Your task to perform on an android device: Go to sound settings Image 0: 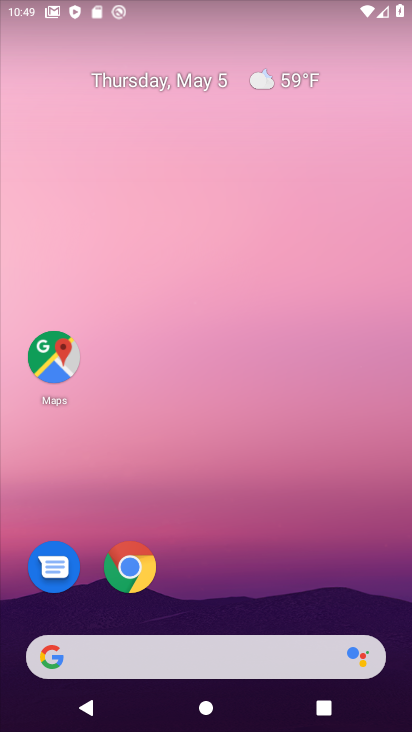
Step 0: drag from (227, 591) to (90, 195)
Your task to perform on an android device: Go to sound settings Image 1: 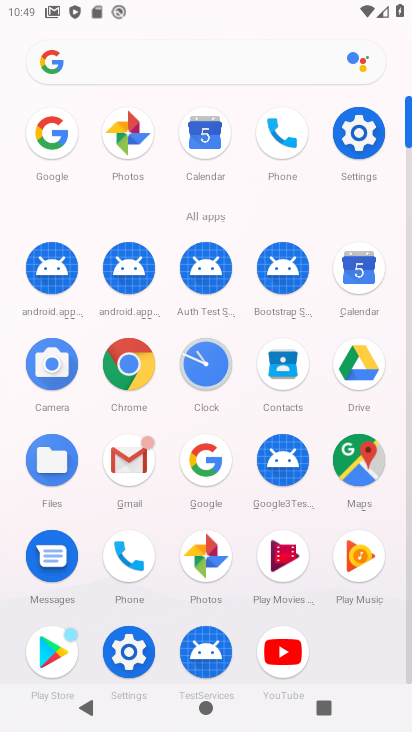
Step 1: click (137, 652)
Your task to perform on an android device: Go to sound settings Image 2: 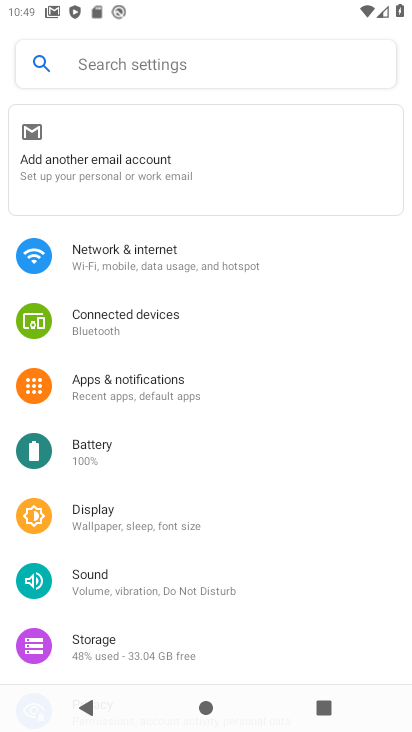
Step 2: click (131, 590)
Your task to perform on an android device: Go to sound settings Image 3: 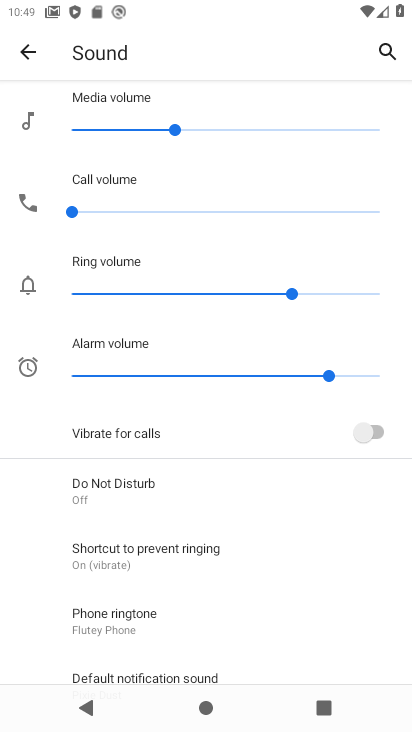
Step 3: task complete